Your task to perform on an android device: install app "Google Play Music" Image 0: 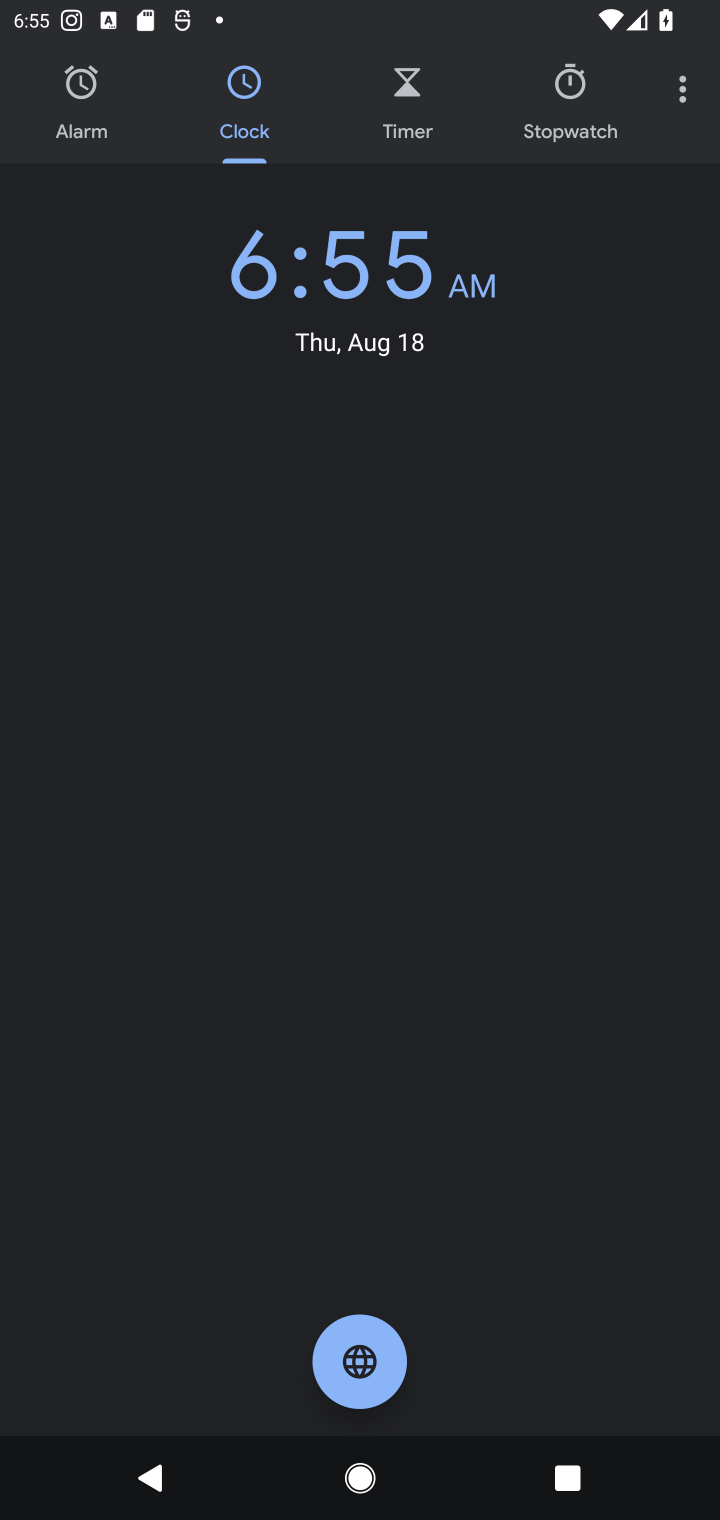
Step 0: press home button
Your task to perform on an android device: install app "Google Play Music" Image 1: 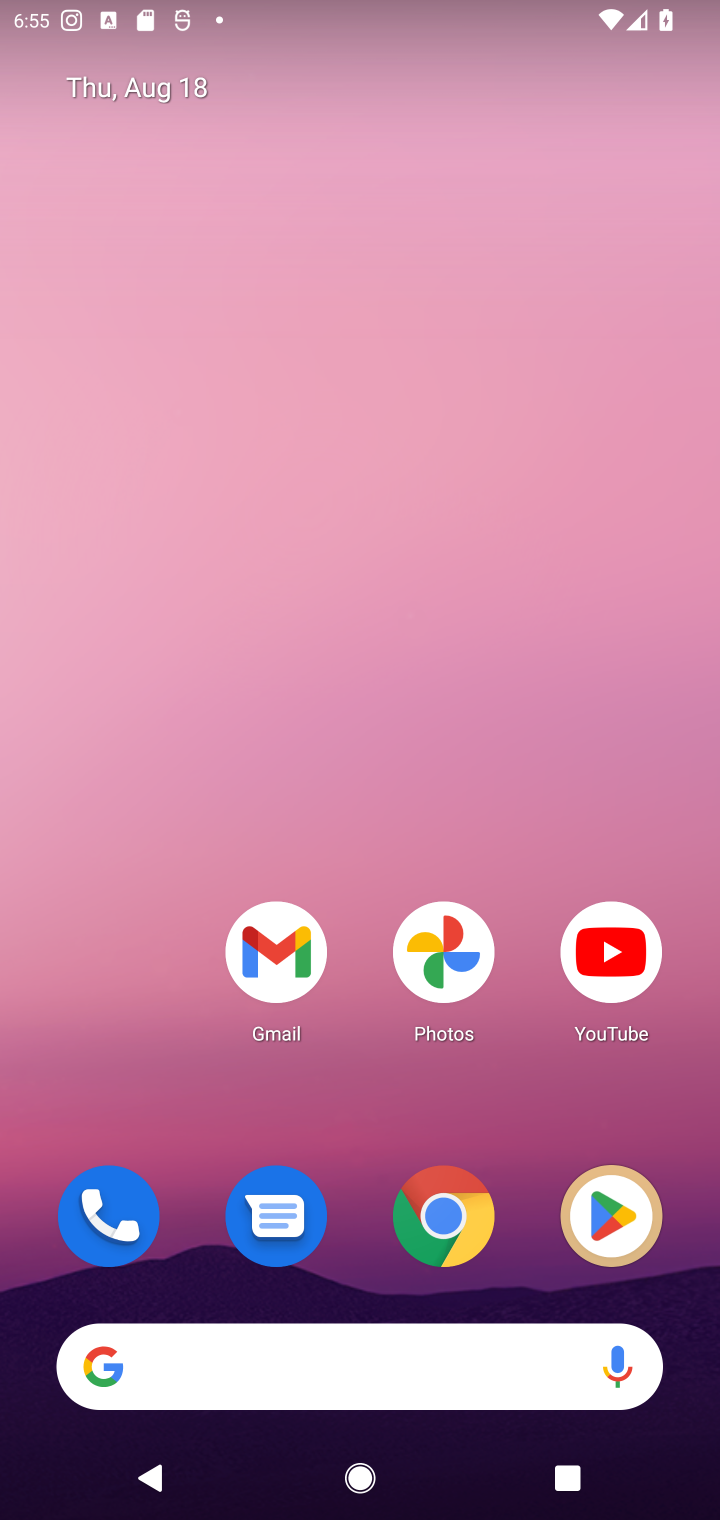
Step 1: click (621, 1178)
Your task to perform on an android device: install app "Google Play Music" Image 2: 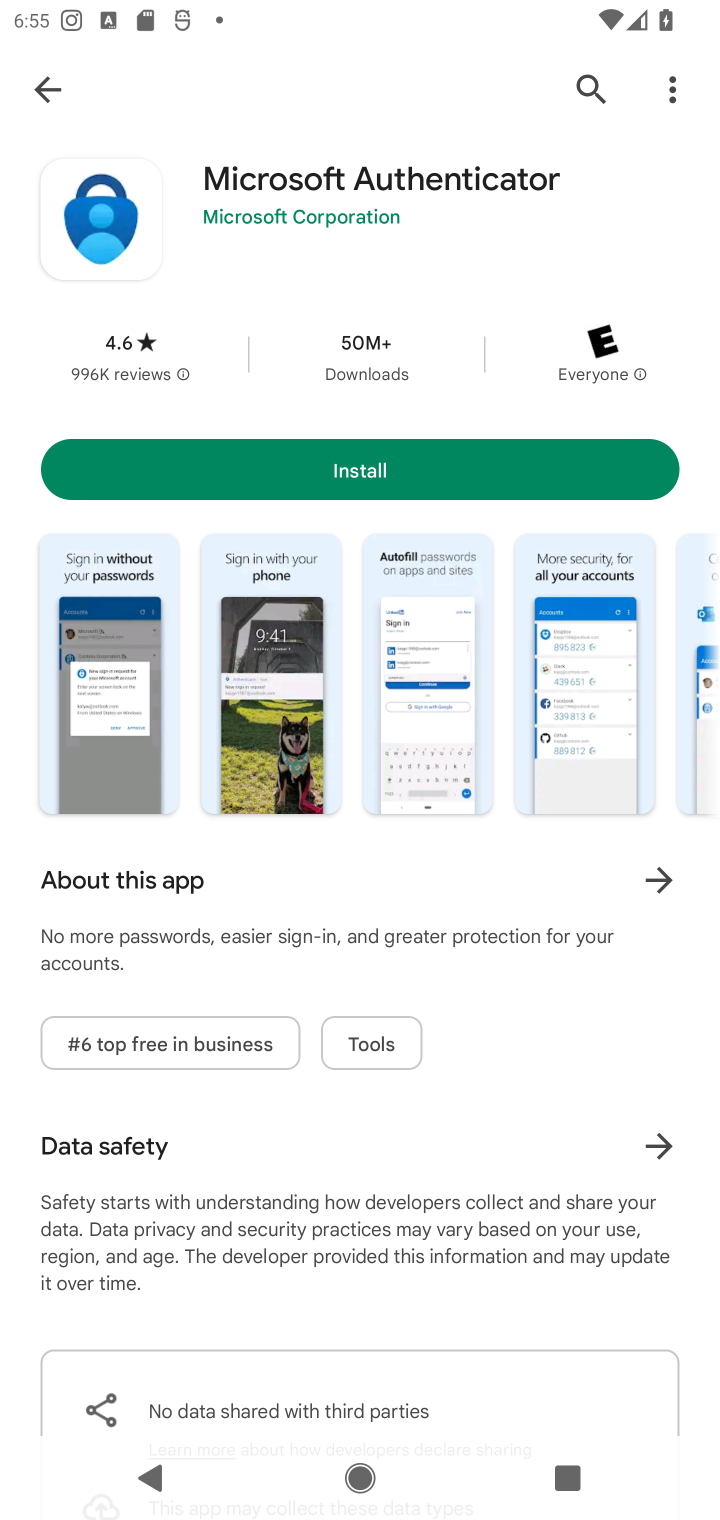
Step 2: click (580, 86)
Your task to perform on an android device: install app "Google Play Music" Image 3: 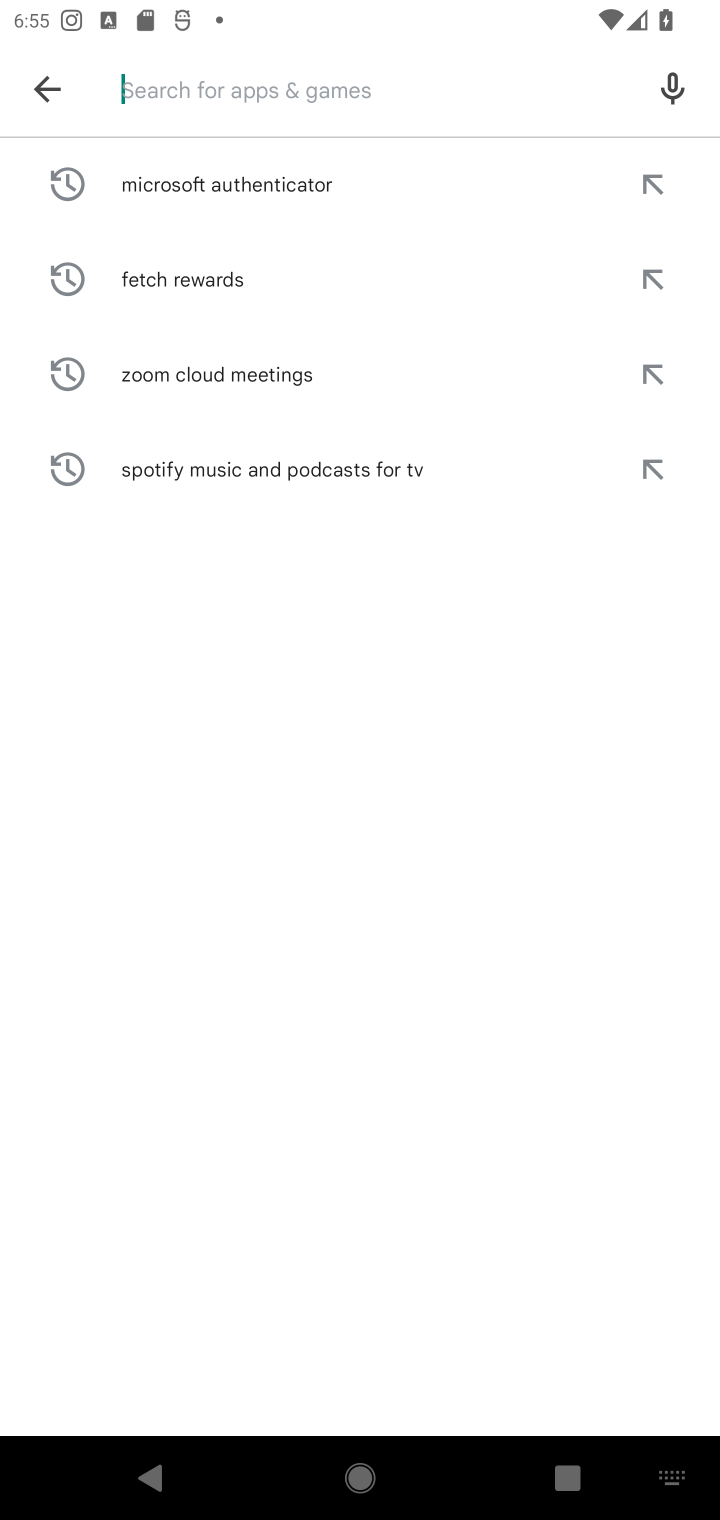
Step 3: type "Google Play Music"
Your task to perform on an android device: install app "Google Play Music" Image 4: 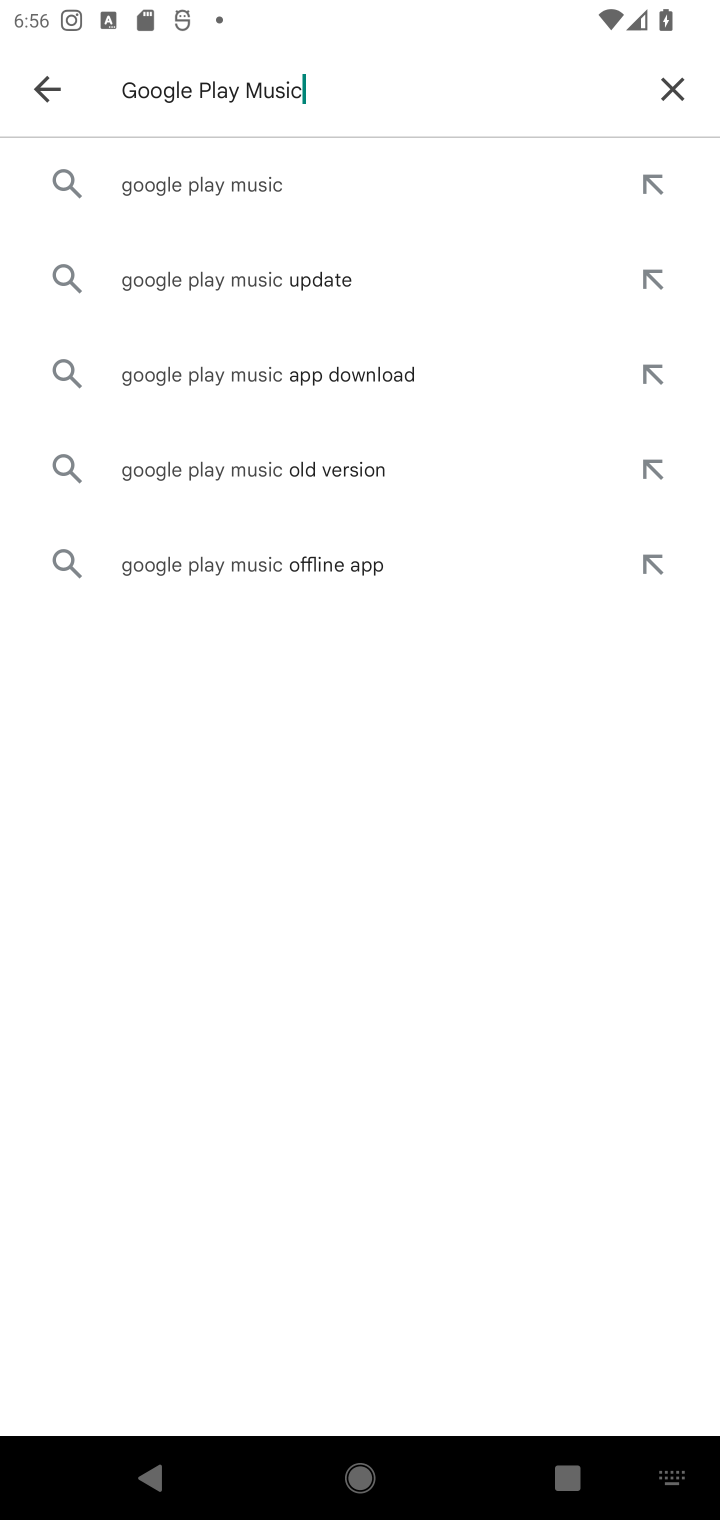
Step 4: click (236, 185)
Your task to perform on an android device: install app "Google Play Music" Image 5: 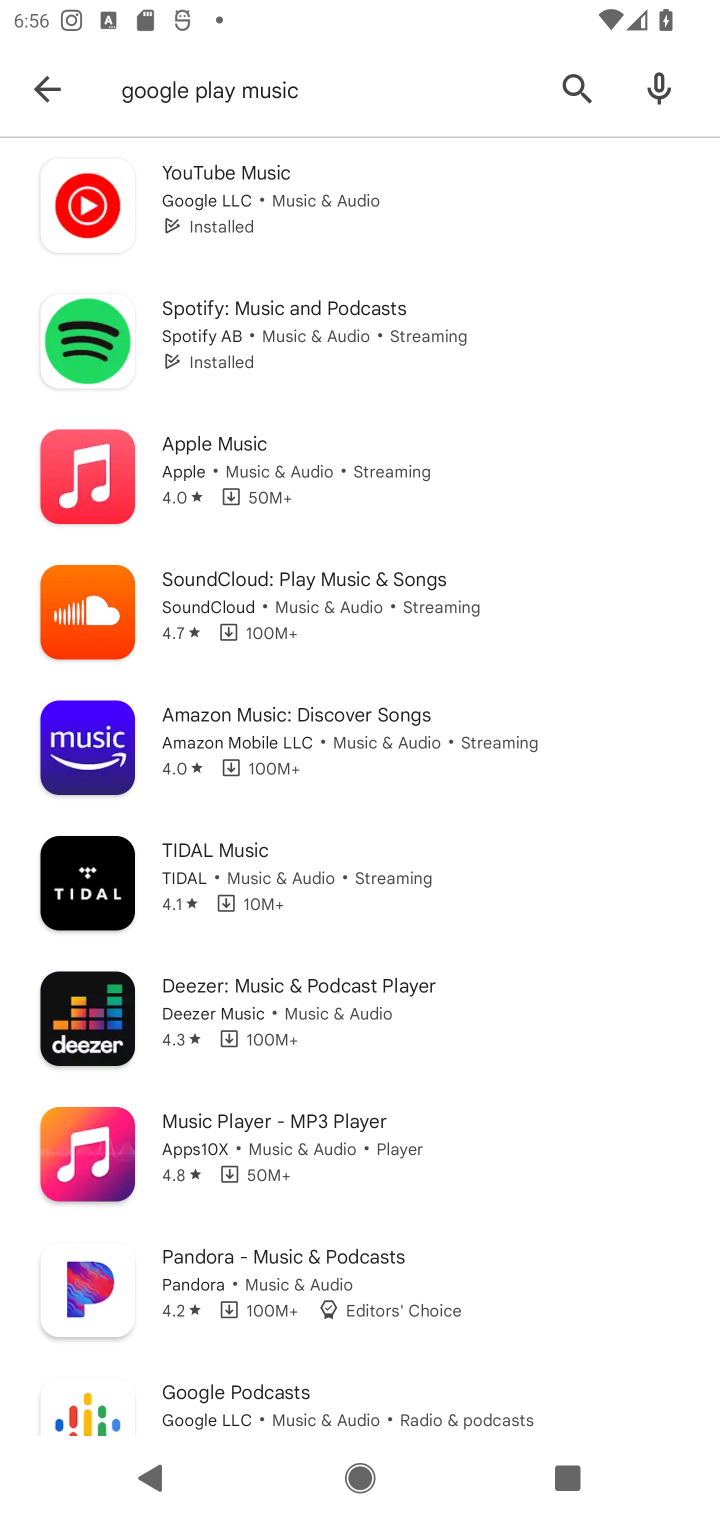
Step 5: task complete